Your task to perform on an android device: open sync settings in chrome Image 0: 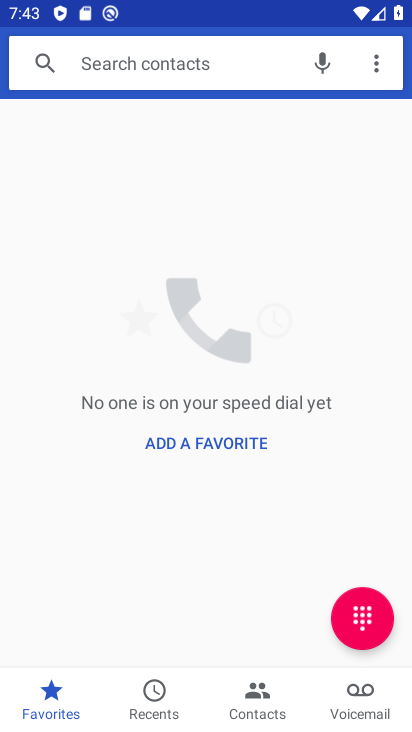
Step 0: press home button
Your task to perform on an android device: open sync settings in chrome Image 1: 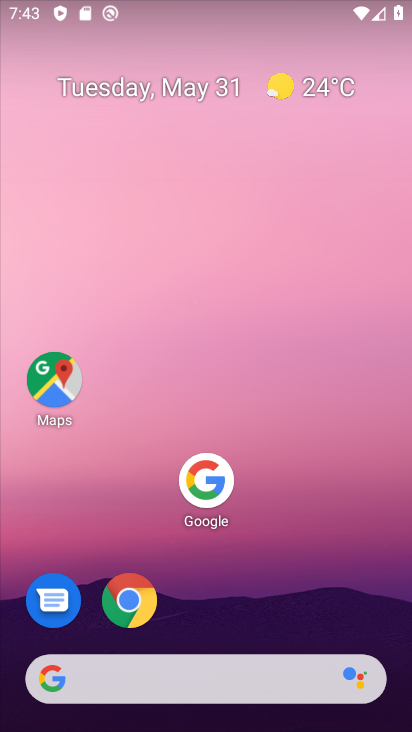
Step 1: click (129, 597)
Your task to perform on an android device: open sync settings in chrome Image 2: 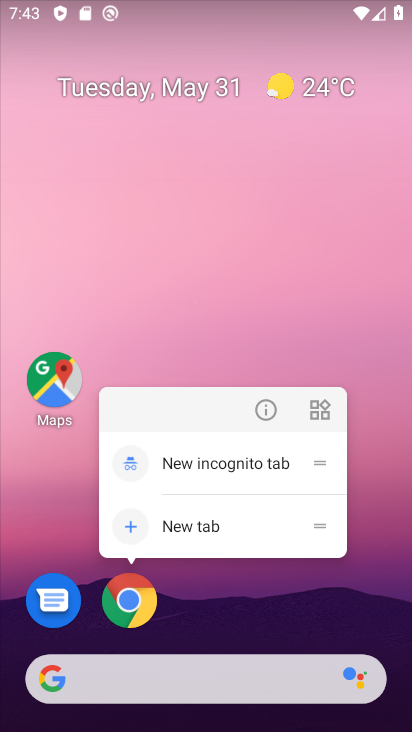
Step 2: click (129, 594)
Your task to perform on an android device: open sync settings in chrome Image 3: 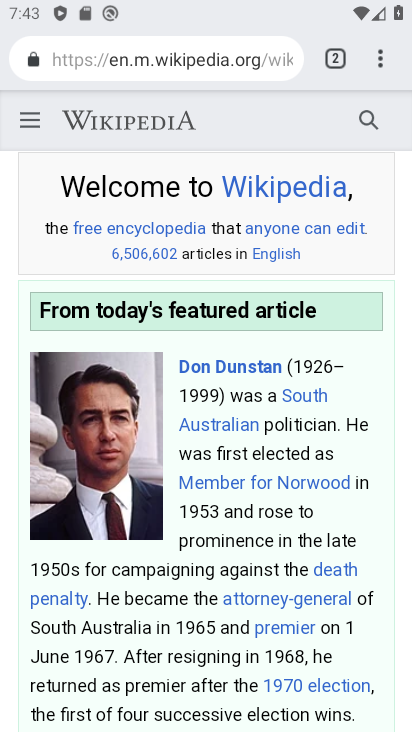
Step 3: drag from (379, 59) to (176, 624)
Your task to perform on an android device: open sync settings in chrome Image 4: 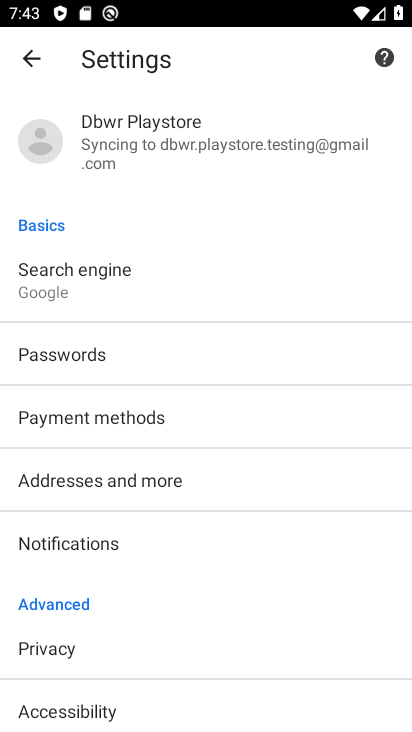
Step 4: click (193, 154)
Your task to perform on an android device: open sync settings in chrome Image 5: 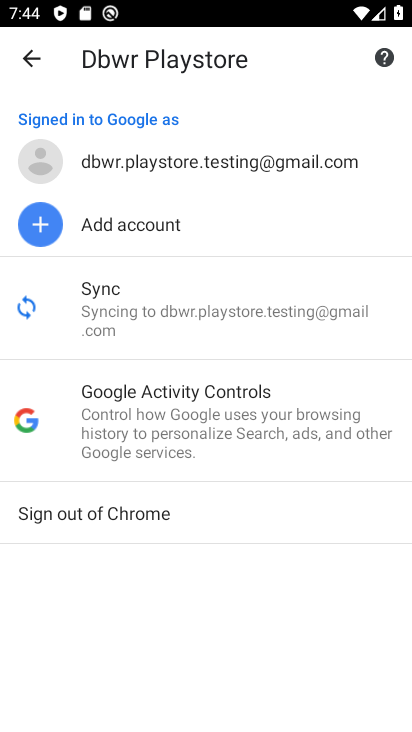
Step 5: click (132, 323)
Your task to perform on an android device: open sync settings in chrome Image 6: 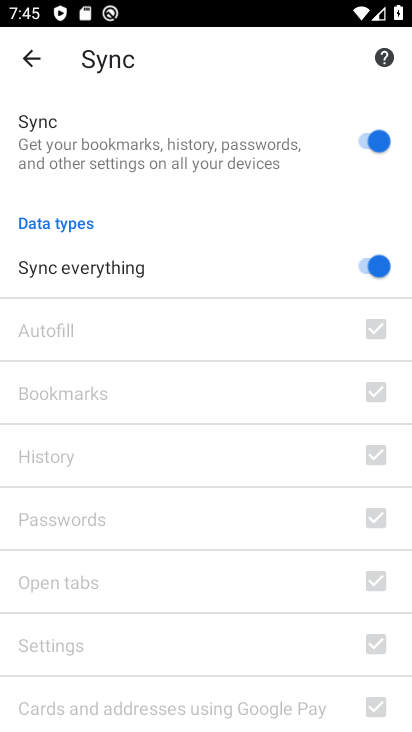
Step 6: task complete